Your task to perform on an android device: Open the phone app and click the voicemail tab. Image 0: 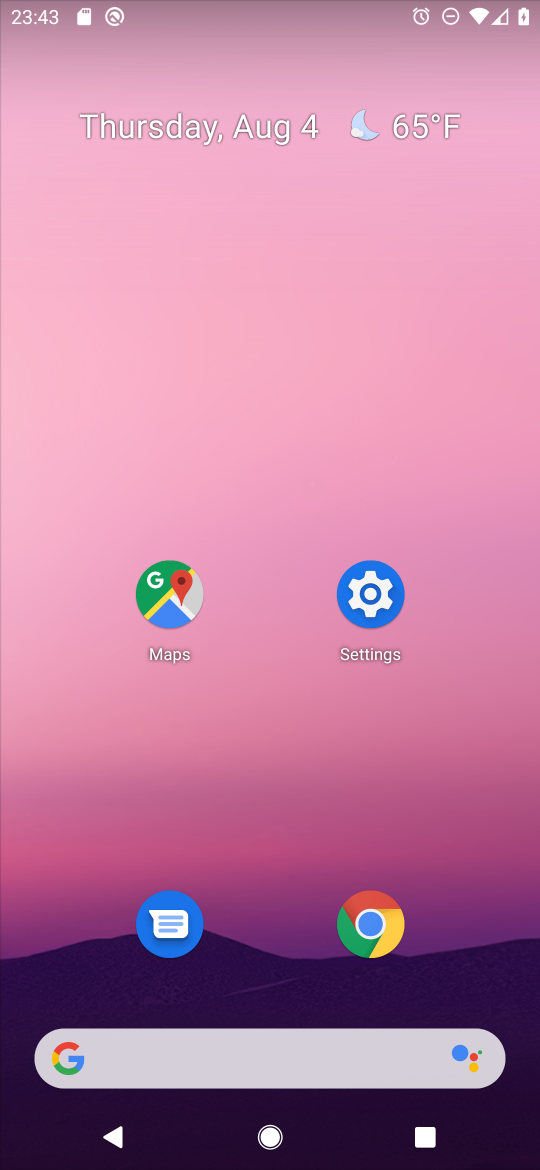
Step 0: press home button
Your task to perform on an android device: Open the phone app and click the voicemail tab. Image 1: 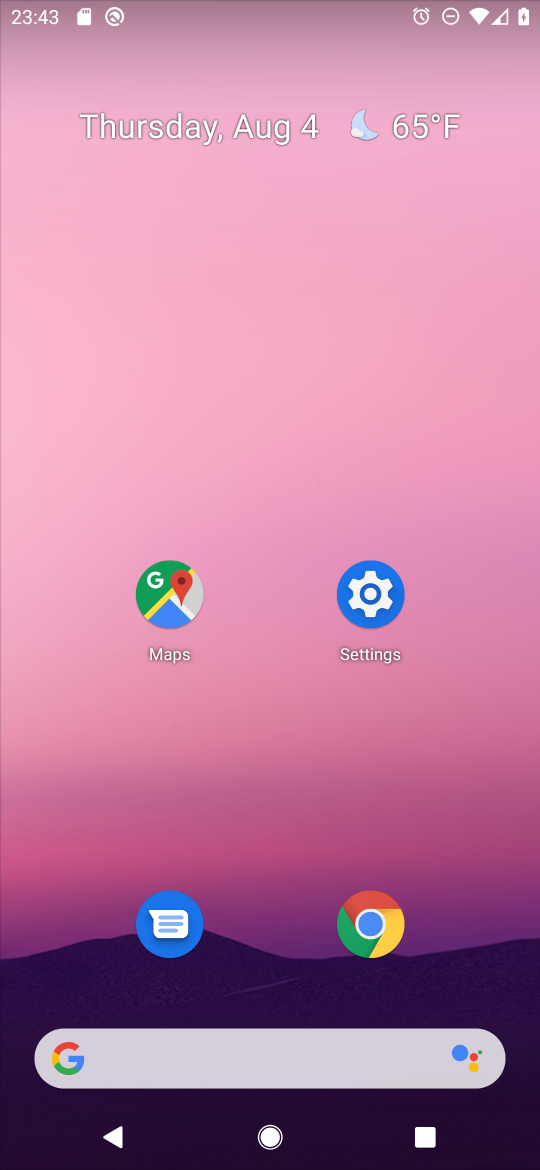
Step 1: drag from (238, 985) to (468, 185)
Your task to perform on an android device: Open the phone app and click the voicemail tab. Image 2: 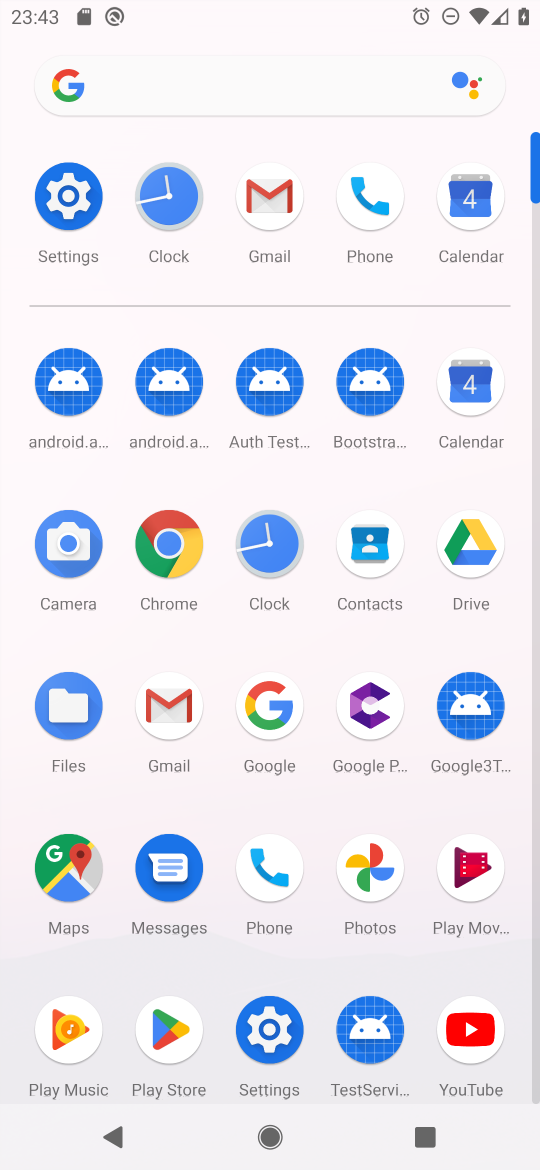
Step 2: click (270, 886)
Your task to perform on an android device: Open the phone app and click the voicemail tab. Image 3: 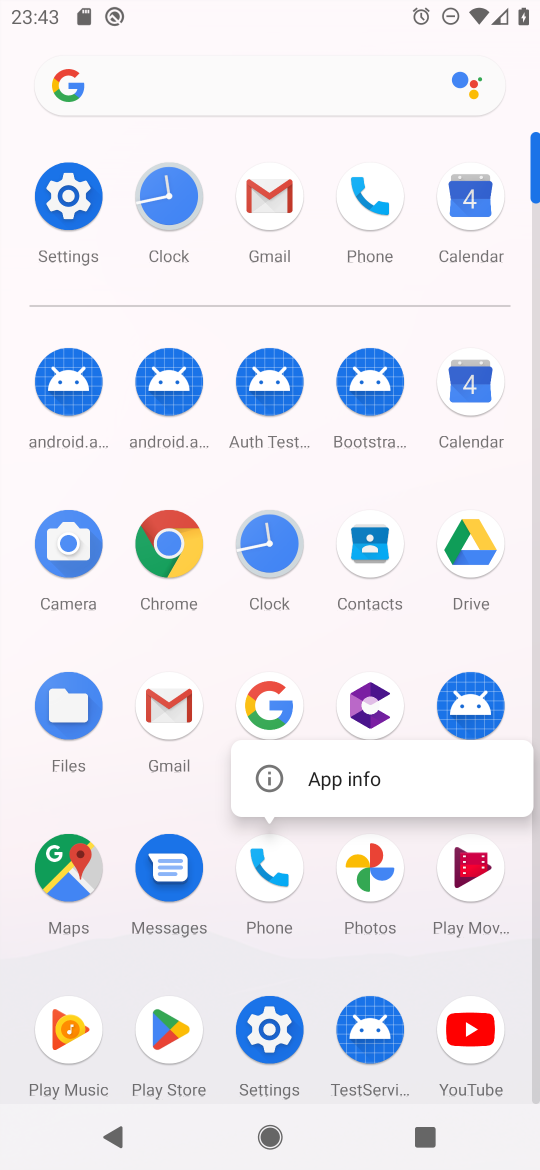
Step 3: click (277, 872)
Your task to perform on an android device: Open the phone app and click the voicemail tab. Image 4: 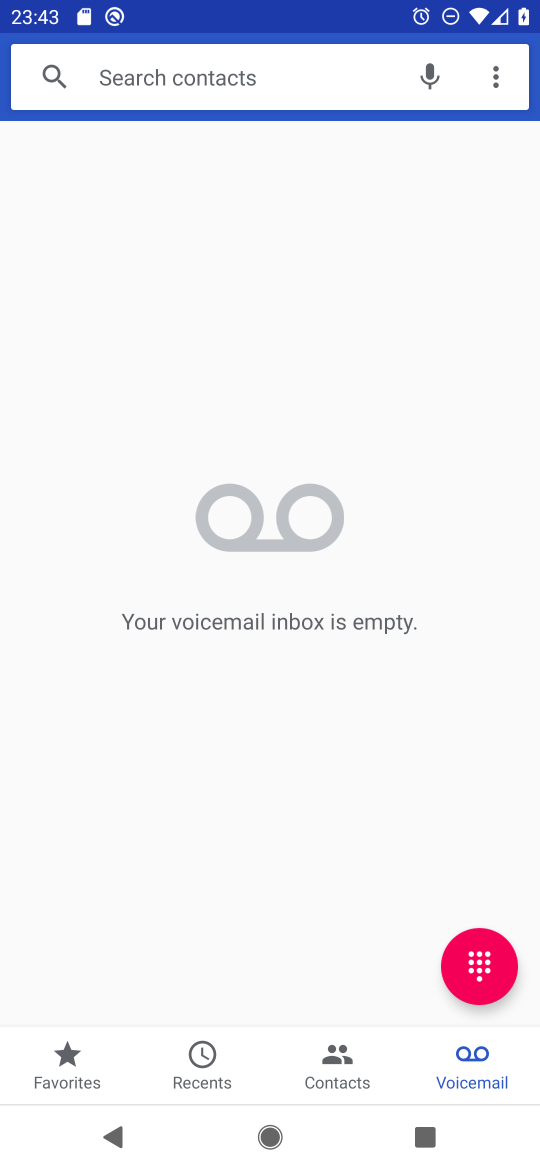
Step 4: click (468, 1054)
Your task to perform on an android device: Open the phone app and click the voicemail tab. Image 5: 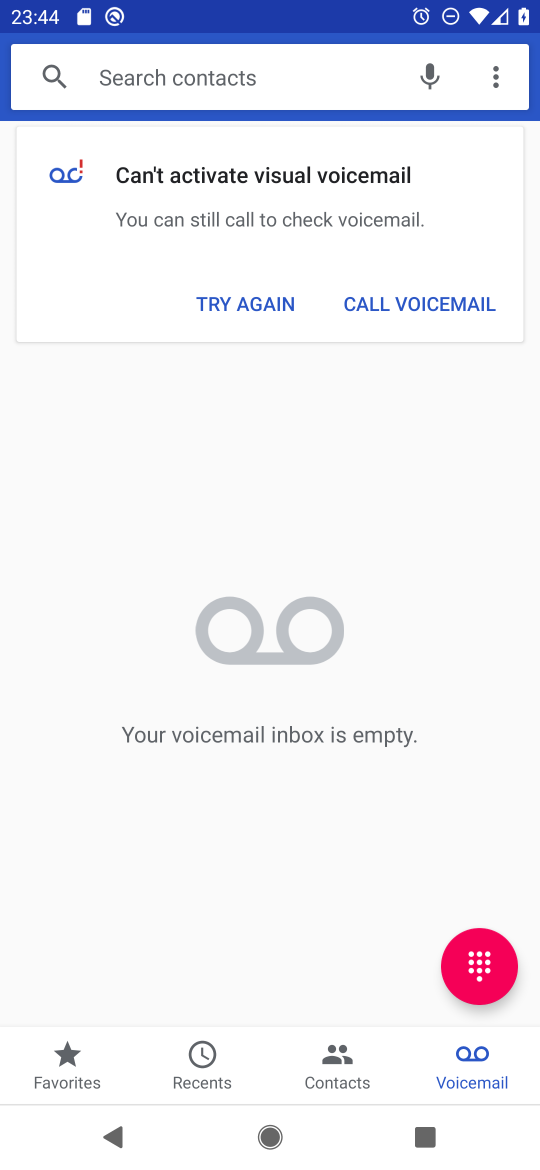
Step 5: task complete